Your task to perform on an android device: Search for vegetarian restaurants on Maps Image 0: 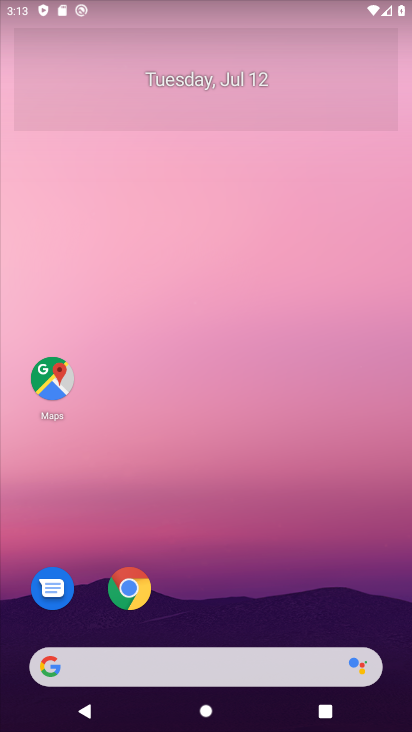
Step 0: click (53, 380)
Your task to perform on an android device: Search for vegetarian restaurants on Maps Image 1: 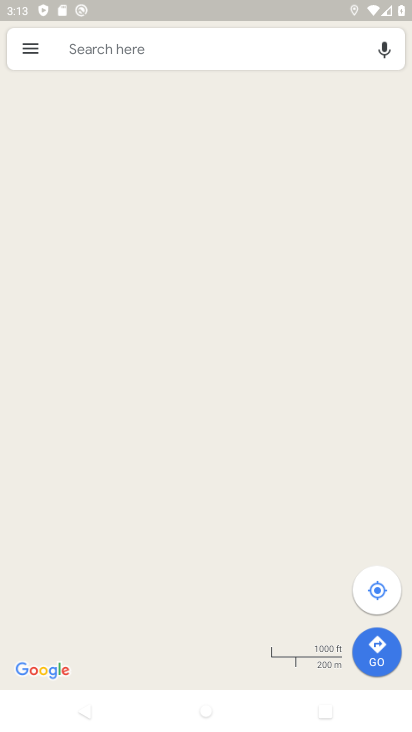
Step 1: click (223, 66)
Your task to perform on an android device: Search for vegetarian restaurants on Maps Image 2: 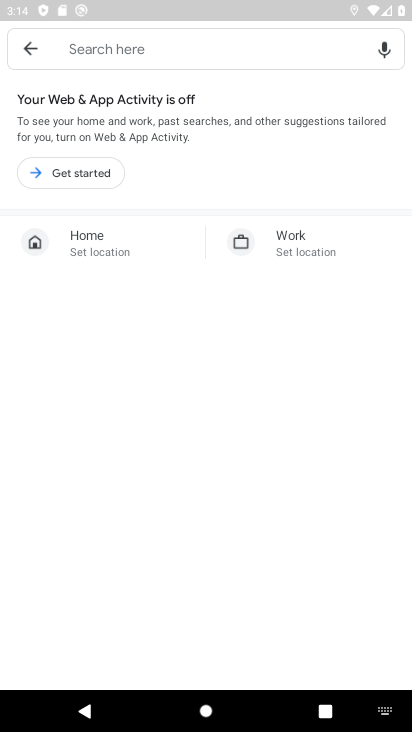
Step 2: type "vegetarian restaurants"
Your task to perform on an android device: Search for vegetarian restaurants on Maps Image 3: 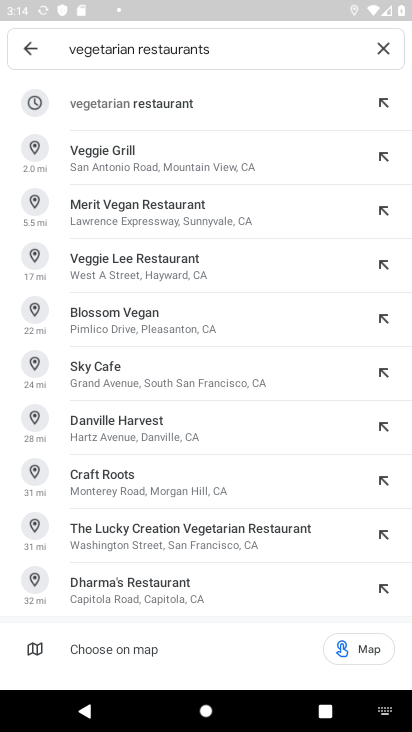
Step 3: click (164, 84)
Your task to perform on an android device: Search for vegetarian restaurants on Maps Image 4: 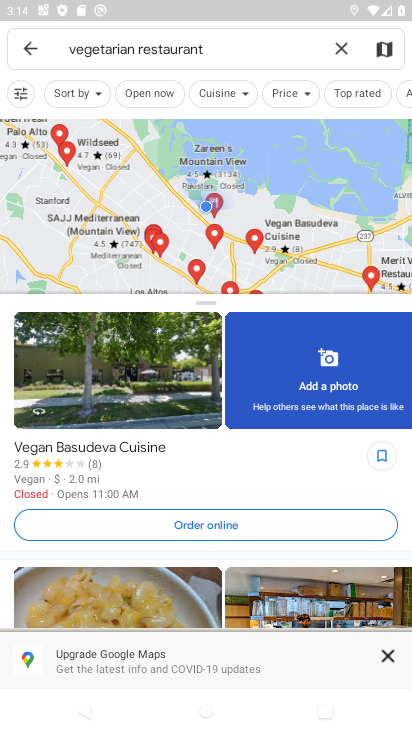
Step 4: task complete